Your task to perform on an android device: Open the phone app and click the voicemail tab. Image 0: 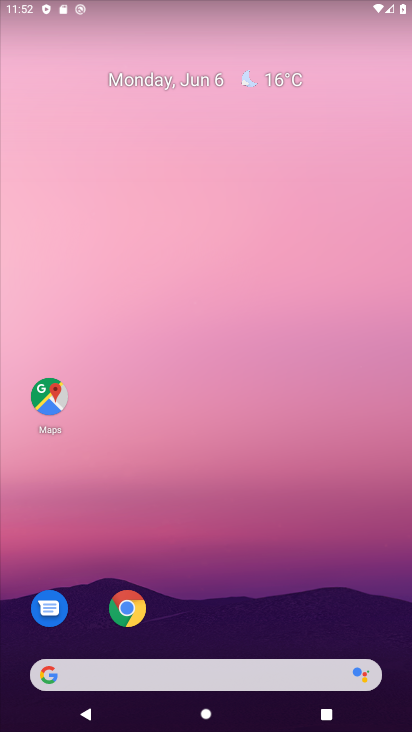
Step 0: drag from (248, 597) to (303, 4)
Your task to perform on an android device: Open the phone app and click the voicemail tab. Image 1: 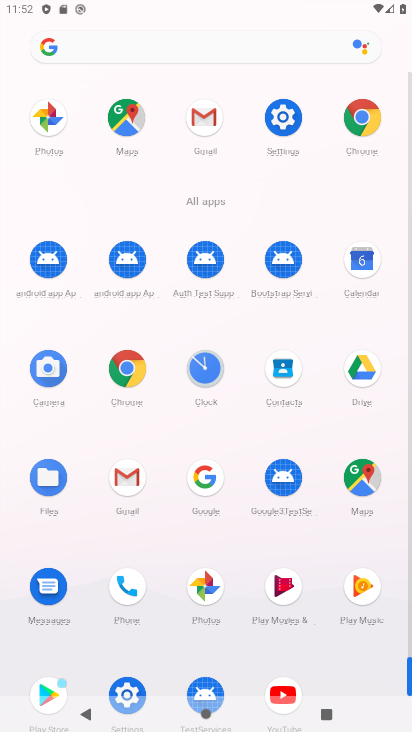
Step 1: click (129, 589)
Your task to perform on an android device: Open the phone app and click the voicemail tab. Image 2: 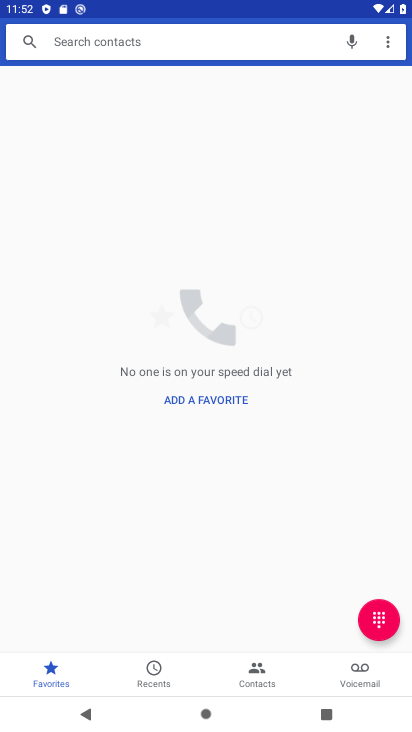
Step 2: click (347, 674)
Your task to perform on an android device: Open the phone app and click the voicemail tab. Image 3: 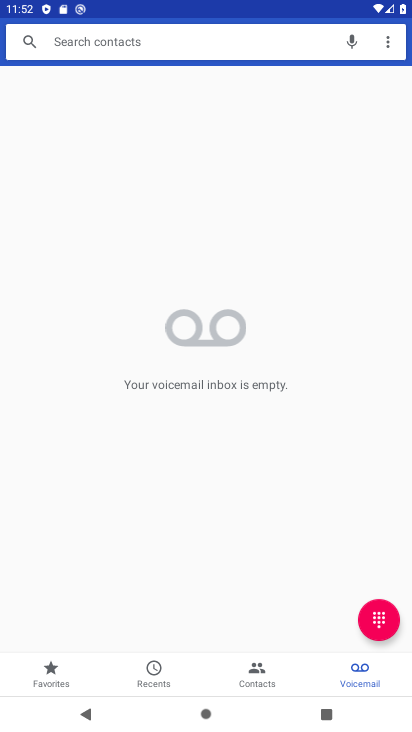
Step 3: task complete